Your task to perform on an android device: toggle location history Image 0: 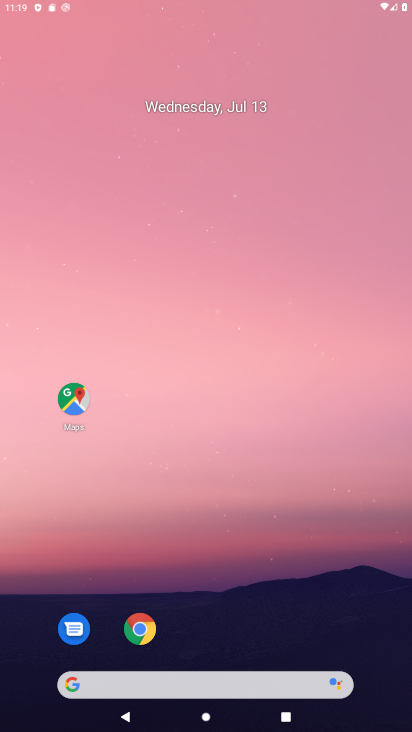
Step 0: drag from (164, 651) to (301, 215)
Your task to perform on an android device: toggle location history Image 1: 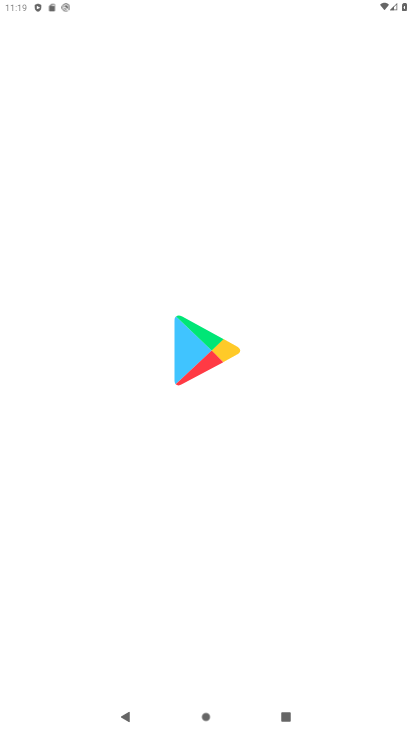
Step 1: press home button
Your task to perform on an android device: toggle location history Image 2: 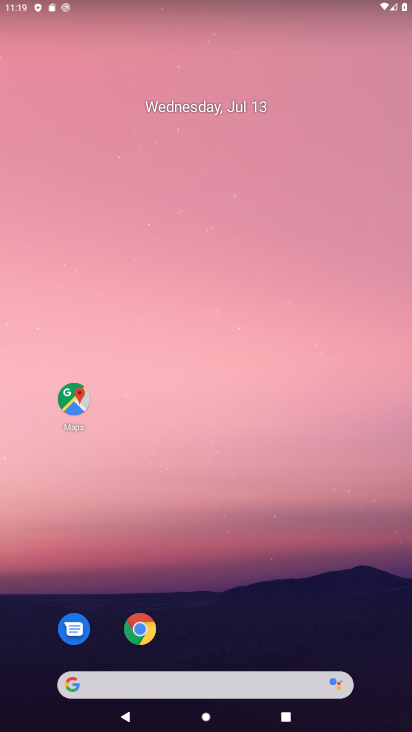
Step 2: drag from (190, 710) to (318, 168)
Your task to perform on an android device: toggle location history Image 3: 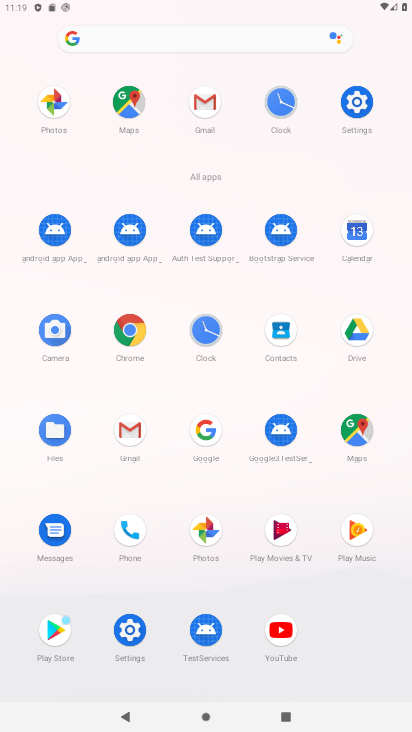
Step 3: click (134, 629)
Your task to perform on an android device: toggle location history Image 4: 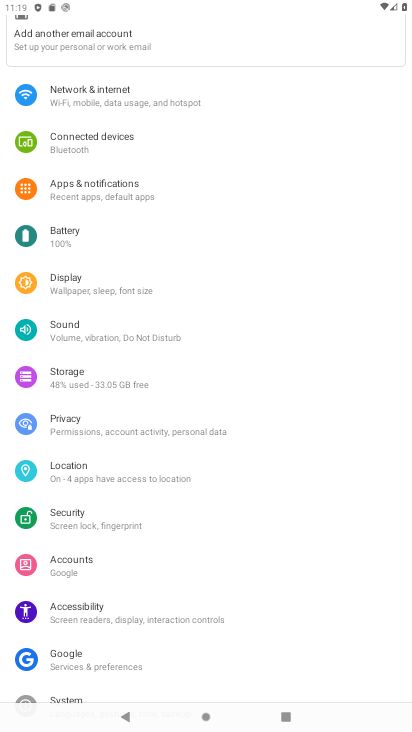
Step 4: click (99, 478)
Your task to perform on an android device: toggle location history Image 5: 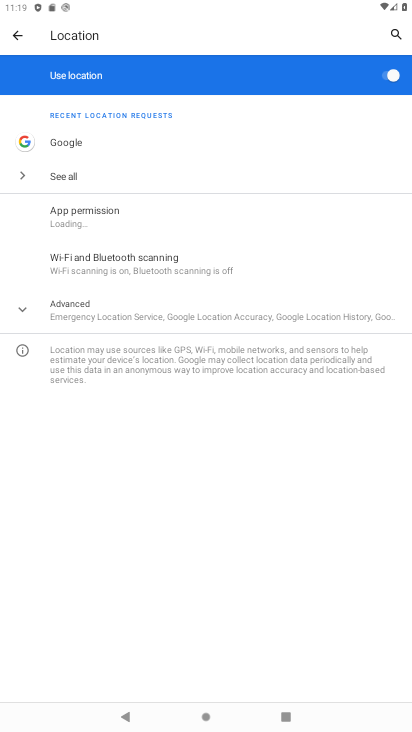
Step 5: click (98, 313)
Your task to perform on an android device: toggle location history Image 6: 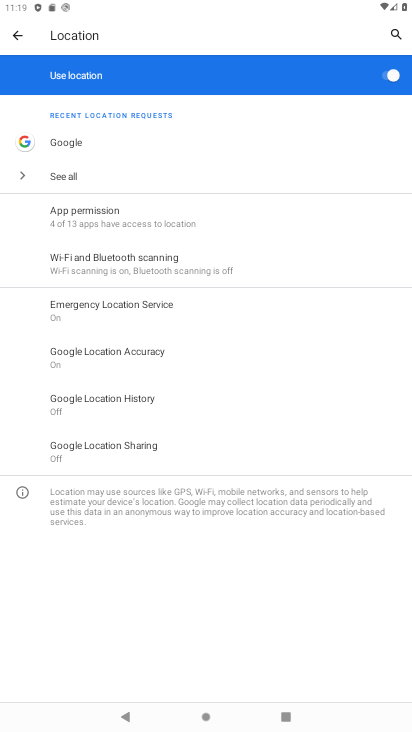
Step 6: click (144, 404)
Your task to perform on an android device: toggle location history Image 7: 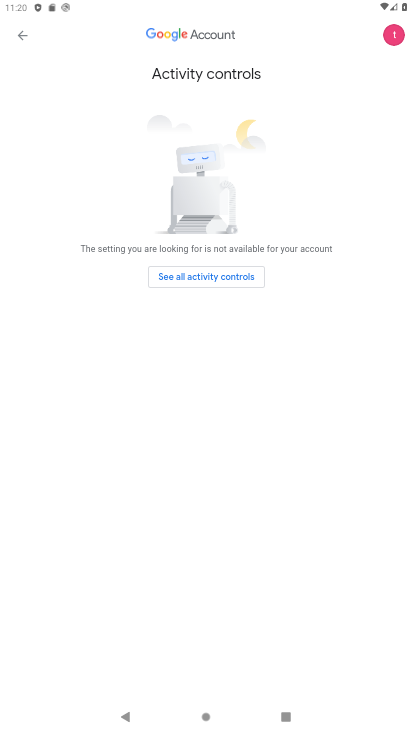
Step 7: task complete